Your task to perform on an android device: Open the Play Movies app and select the watchlist tab. Image 0: 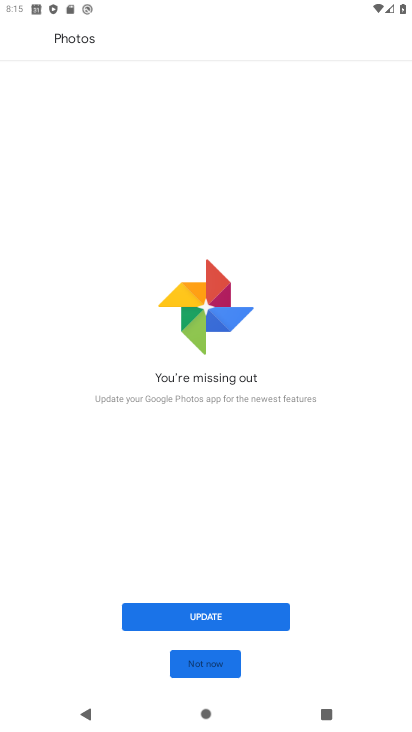
Step 0: press back button
Your task to perform on an android device: Open the Play Movies app and select the watchlist tab. Image 1: 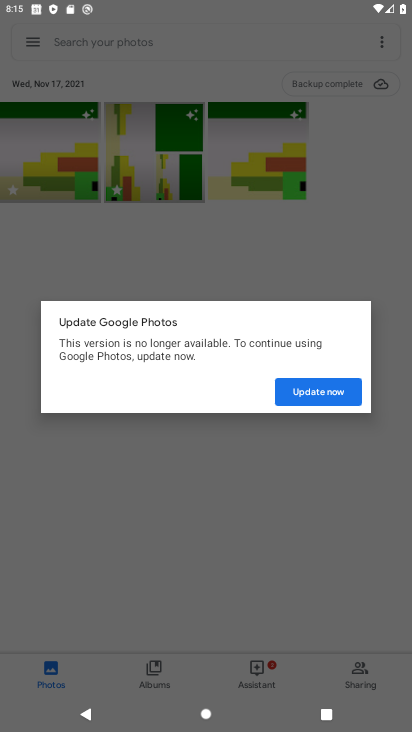
Step 1: press home button
Your task to perform on an android device: Open the Play Movies app and select the watchlist tab. Image 2: 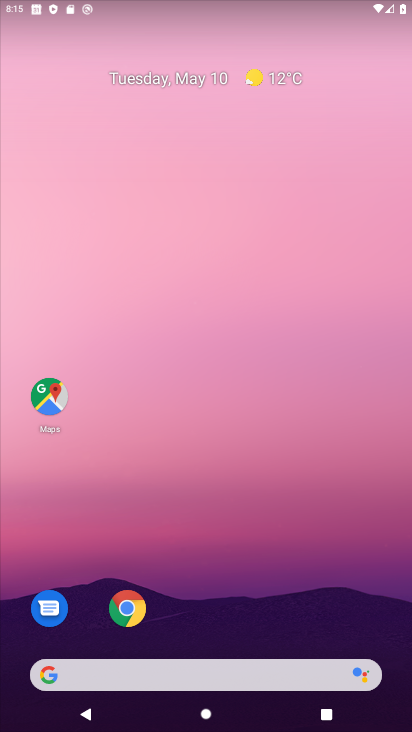
Step 2: drag from (180, 658) to (140, 87)
Your task to perform on an android device: Open the Play Movies app and select the watchlist tab. Image 3: 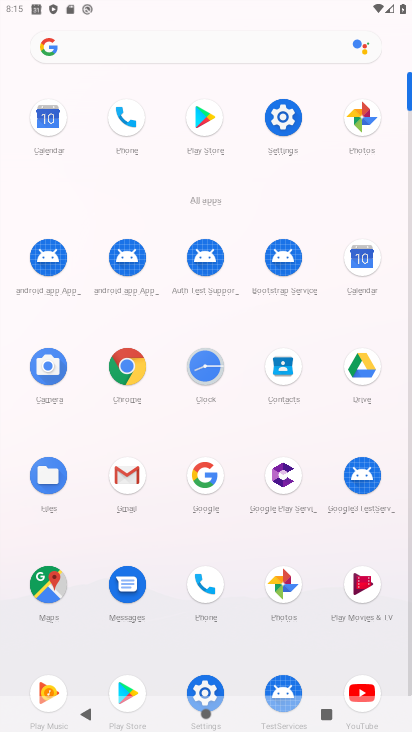
Step 3: click (362, 588)
Your task to perform on an android device: Open the Play Movies app and select the watchlist tab. Image 4: 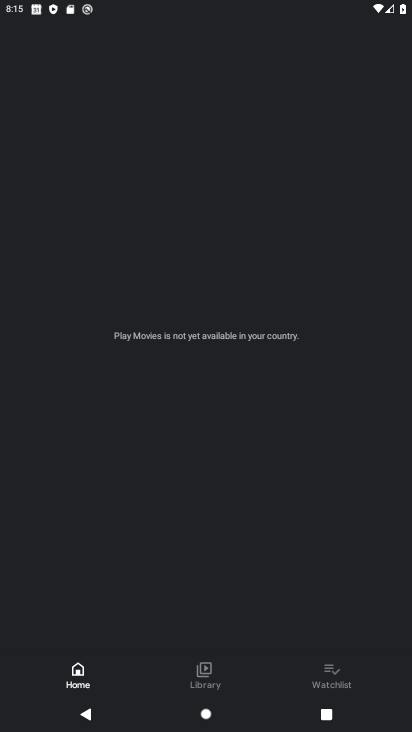
Step 4: click (339, 688)
Your task to perform on an android device: Open the Play Movies app and select the watchlist tab. Image 5: 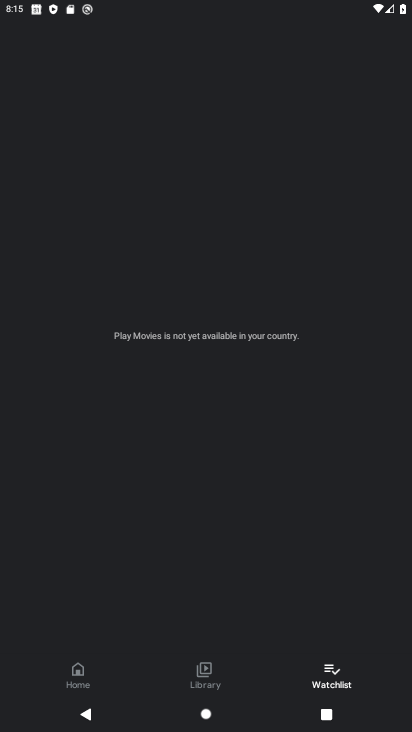
Step 5: task complete